Your task to perform on an android device: See recent photos Image 0: 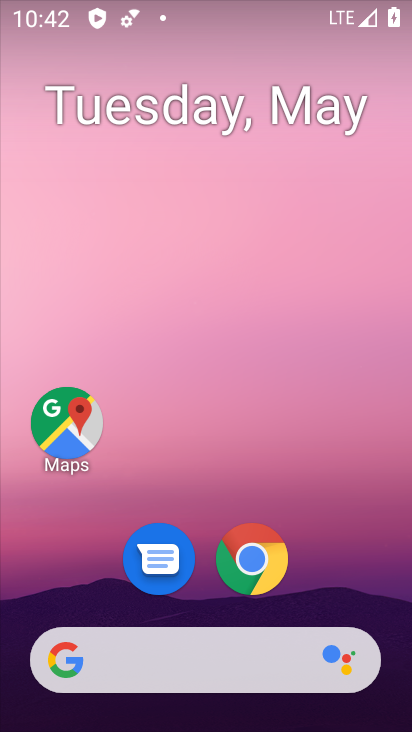
Step 0: drag from (345, 546) to (347, 123)
Your task to perform on an android device: See recent photos Image 1: 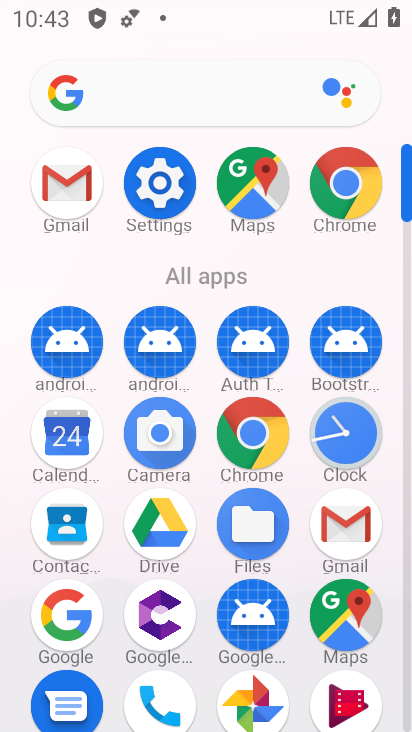
Step 1: click (252, 692)
Your task to perform on an android device: See recent photos Image 2: 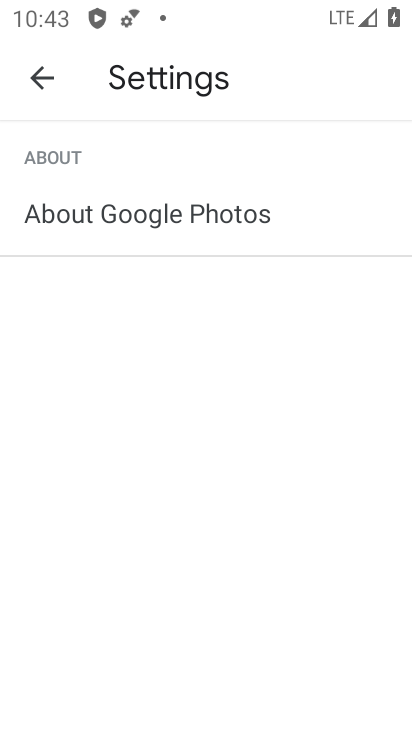
Step 2: click (42, 77)
Your task to perform on an android device: See recent photos Image 3: 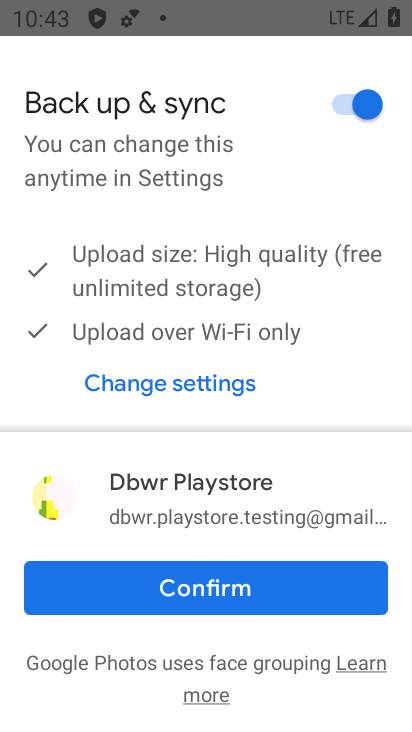
Step 3: click (246, 587)
Your task to perform on an android device: See recent photos Image 4: 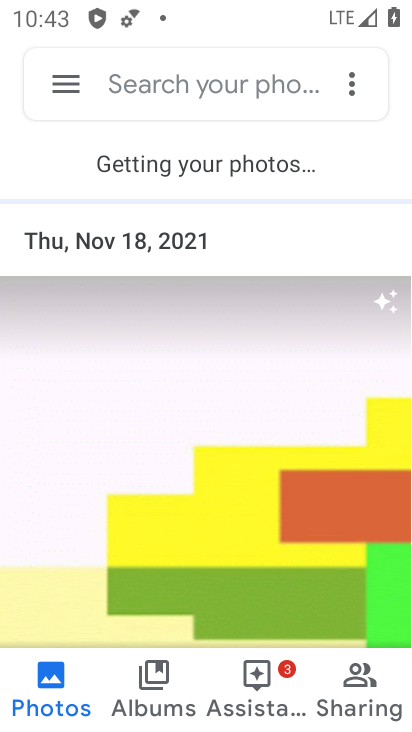
Step 4: task complete